Your task to perform on an android device: Go to accessibility settings Image 0: 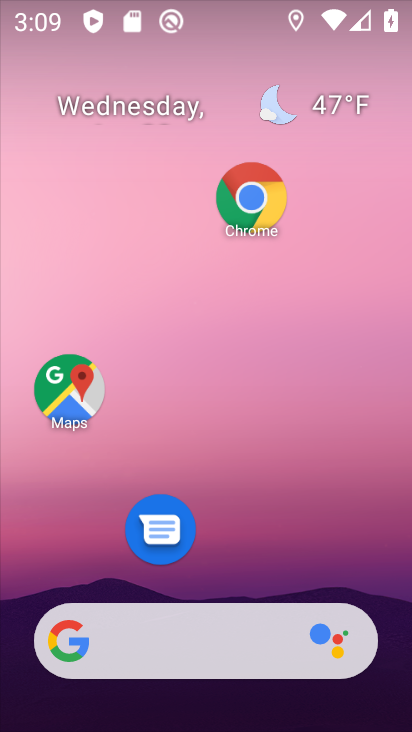
Step 0: drag from (230, 358) to (224, 0)
Your task to perform on an android device: Go to accessibility settings Image 1: 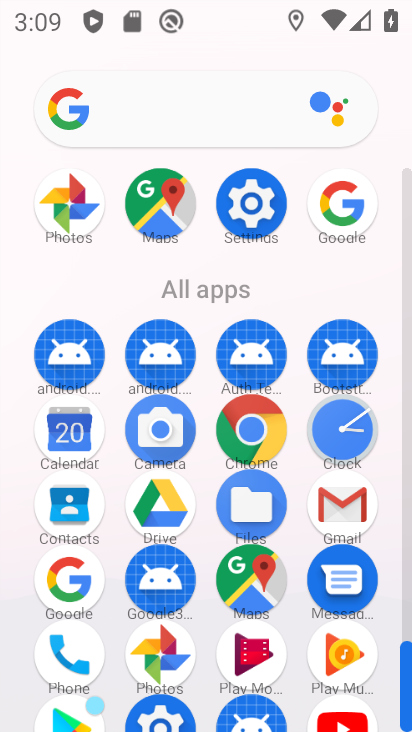
Step 1: click (263, 205)
Your task to perform on an android device: Go to accessibility settings Image 2: 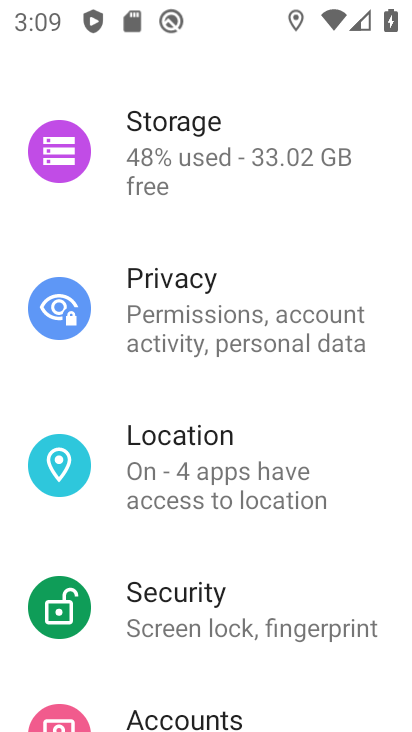
Step 2: drag from (258, 652) to (248, 114)
Your task to perform on an android device: Go to accessibility settings Image 3: 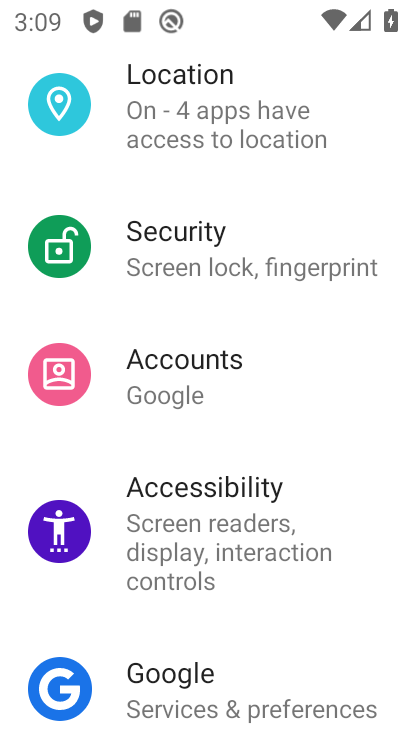
Step 3: drag from (245, 593) to (250, 182)
Your task to perform on an android device: Go to accessibility settings Image 4: 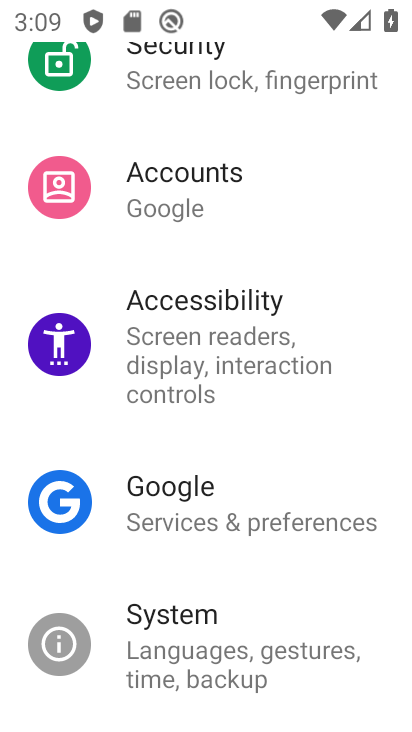
Step 4: click (240, 633)
Your task to perform on an android device: Go to accessibility settings Image 5: 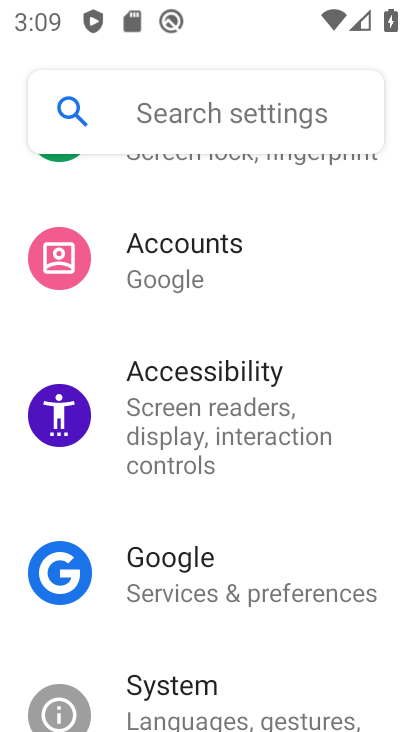
Step 5: click (177, 385)
Your task to perform on an android device: Go to accessibility settings Image 6: 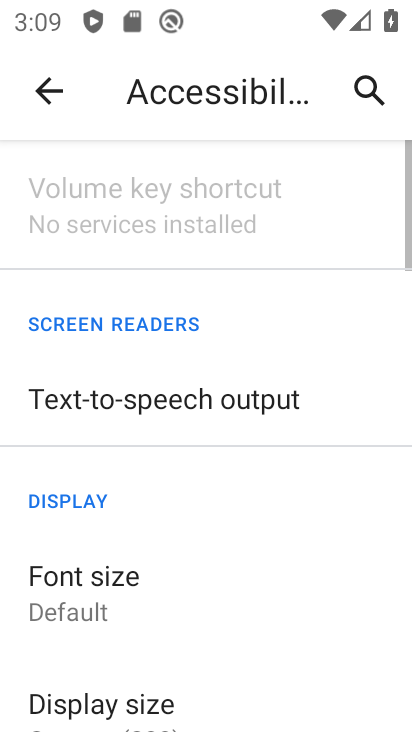
Step 6: task complete